Your task to perform on an android device: turn off picture-in-picture Image 0: 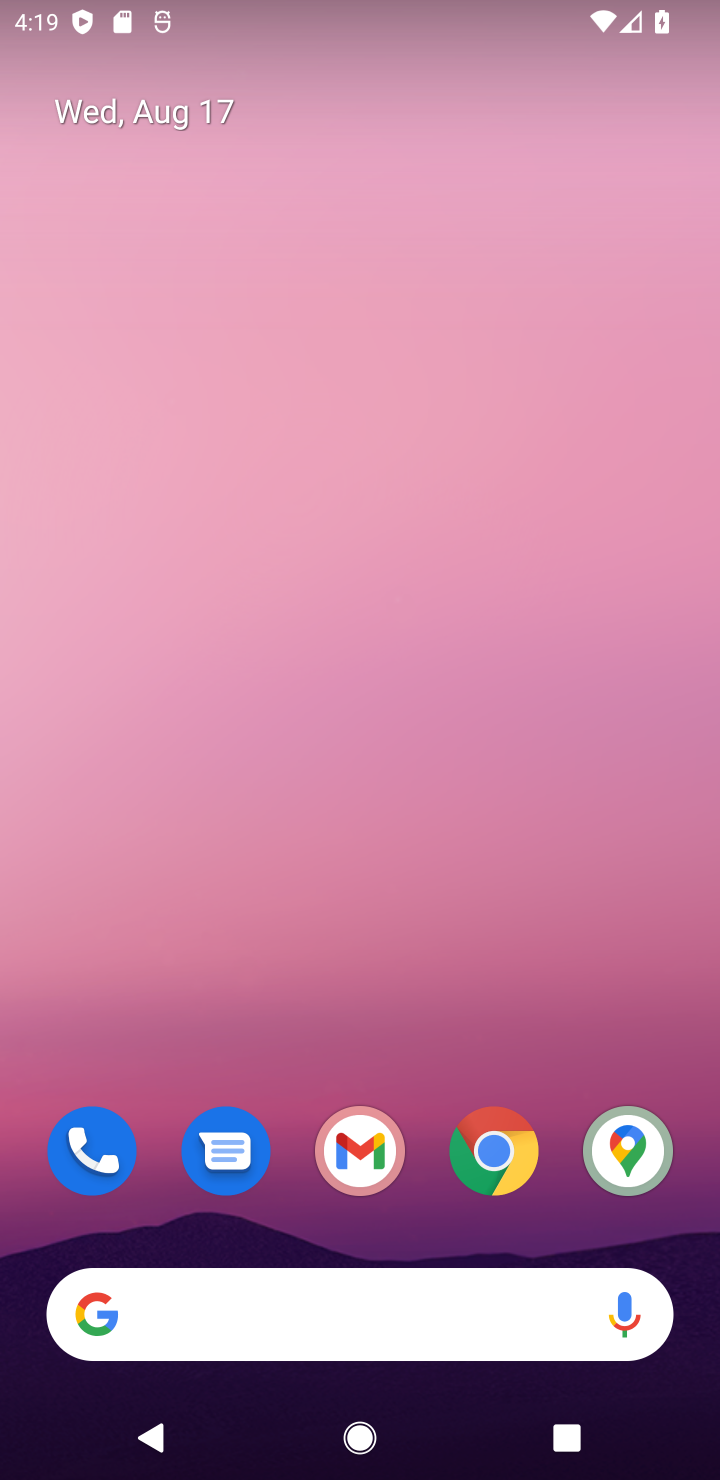
Step 0: click (477, 1165)
Your task to perform on an android device: turn off picture-in-picture Image 1: 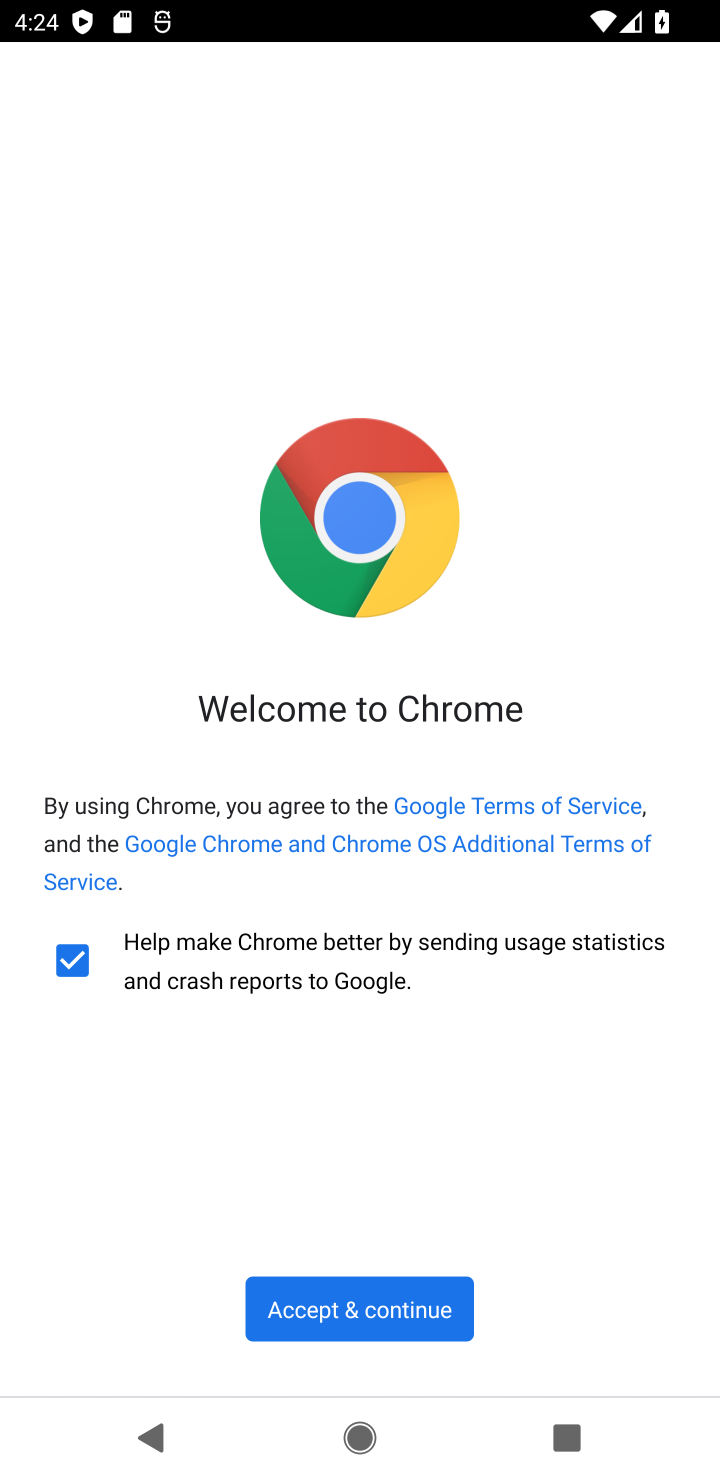
Step 1: task complete